Your task to perform on an android device: Go to calendar. Show me events next week Image 0: 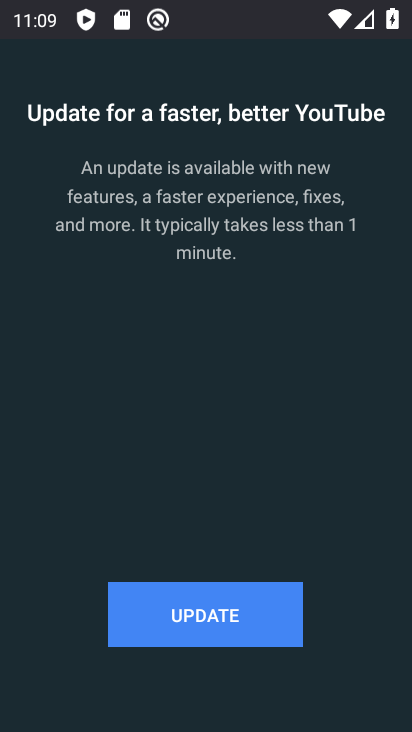
Step 0: press home button
Your task to perform on an android device: Go to calendar. Show me events next week Image 1: 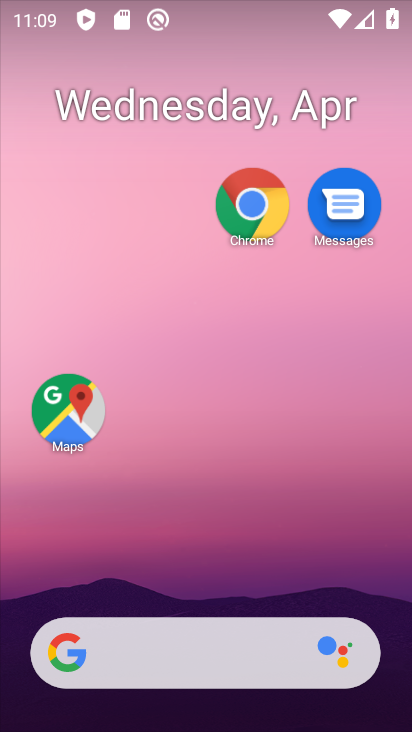
Step 1: drag from (181, 607) to (184, 42)
Your task to perform on an android device: Go to calendar. Show me events next week Image 2: 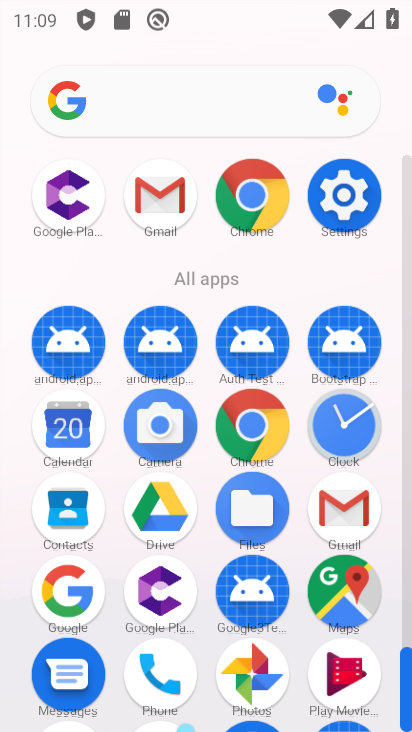
Step 2: click (76, 429)
Your task to perform on an android device: Go to calendar. Show me events next week Image 3: 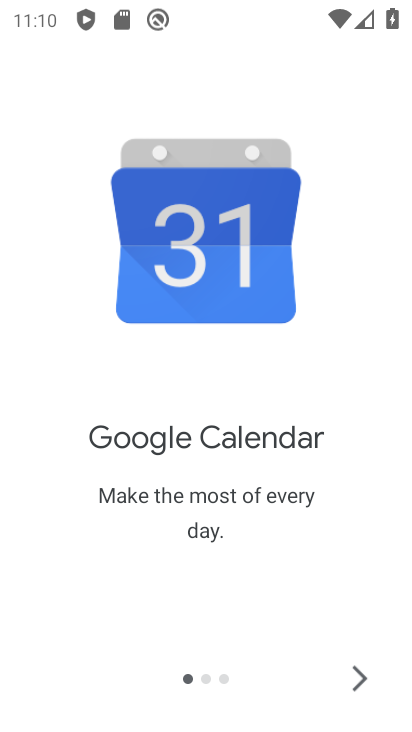
Step 3: click (350, 672)
Your task to perform on an android device: Go to calendar. Show me events next week Image 4: 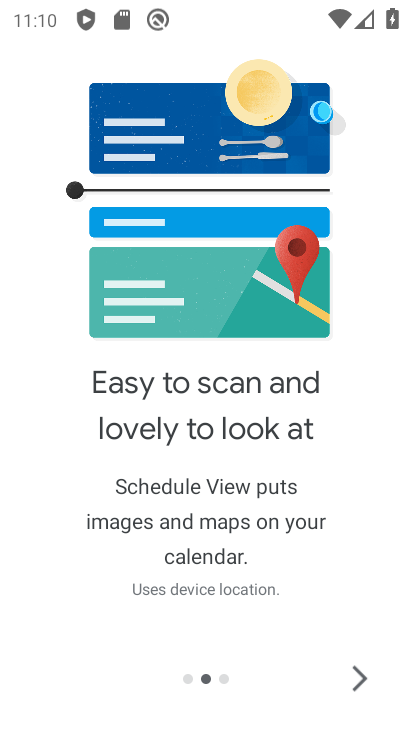
Step 4: click (376, 677)
Your task to perform on an android device: Go to calendar. Show me events next week Image 5: 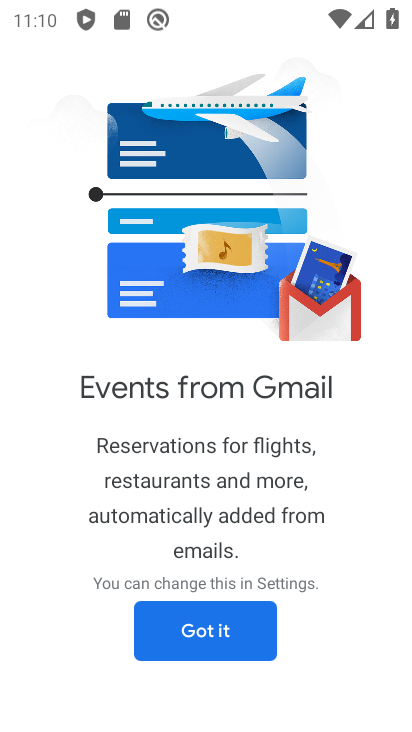
Step 5: click (241, 638)
Your task to perform on an android device: Go to calendar. Show me events next week Image 6: 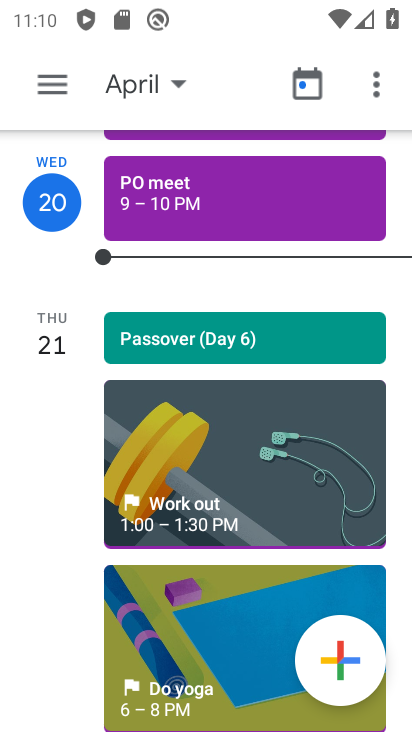
Step 6: click (51, 77)
Your task to perform on an android device: Go to calendar. Show me events next week Image 7: 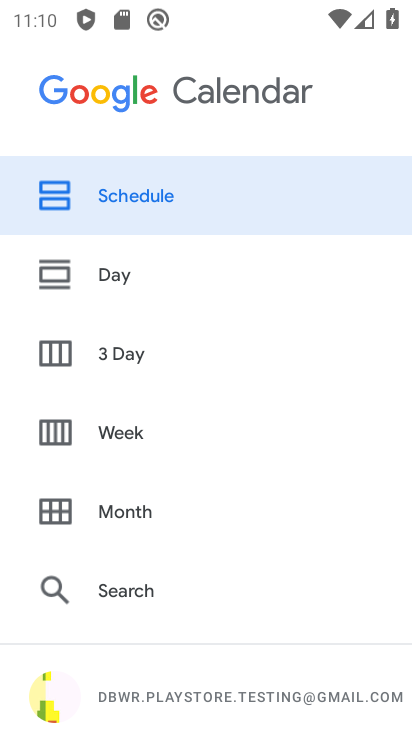
Step 7: click (134, 419)
Your task to perform on an android device: Go to calendar. Show me events next week Image 8: 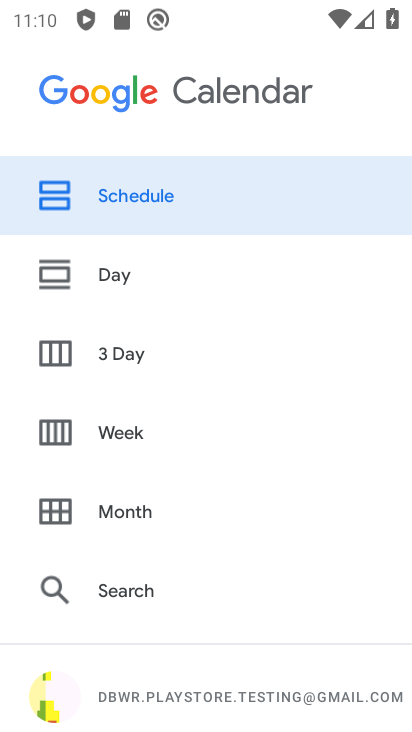
Step 8: click (136, 412)
Your task to perform on an android device: Go to calendar. Show me events next week Image 9: 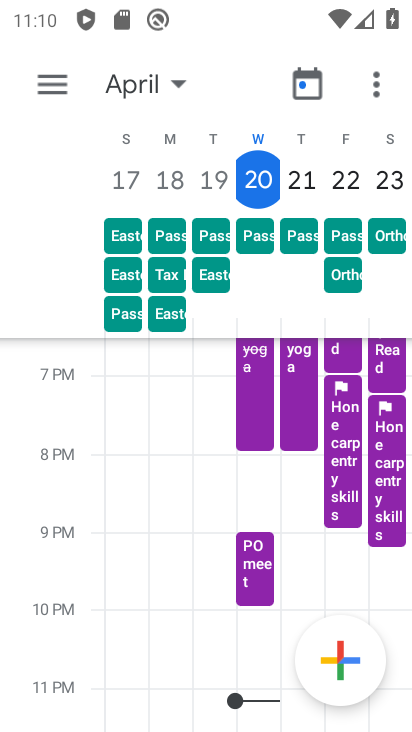
Step 9: task complete